Your task to perform on an android device: open a new tab in the chrome app Image 0: 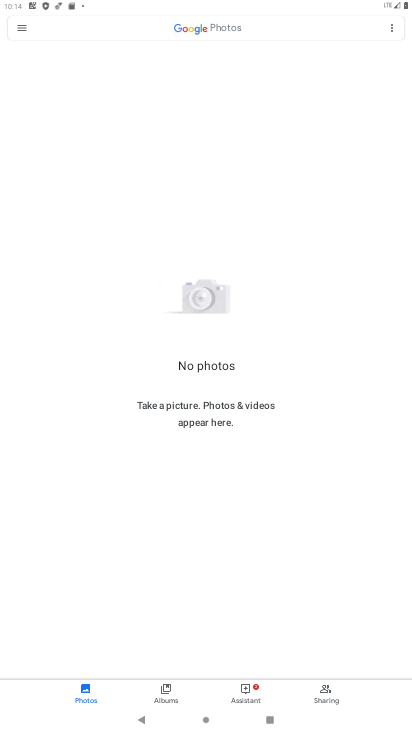
Step 0: press home button
Your task to perform on an android device: open a new tab in the chrome app Image 1: 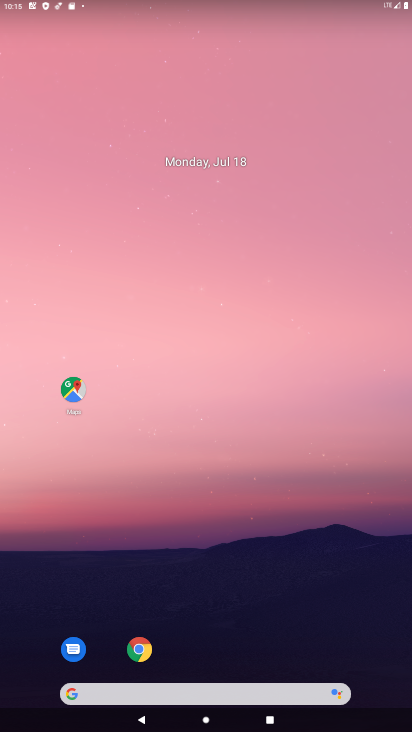
Step 1: click (141, 649)
Your task to perform on an android device: open a new tab in the chrome app Image 2: 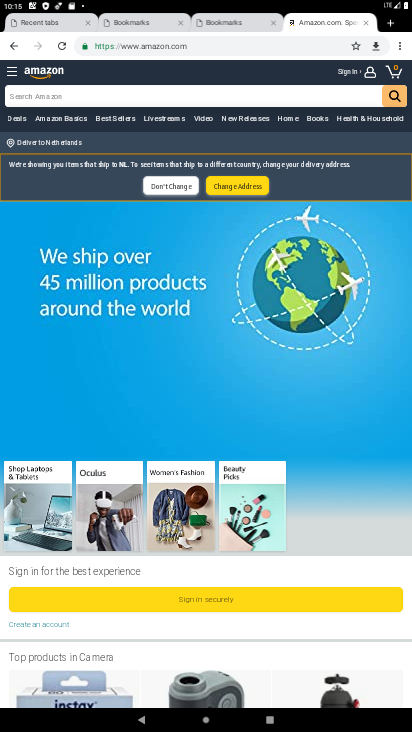
Step 2: click (397, 42)
Your task to perform on an android device: open a new tab in the chrome app Image 3: 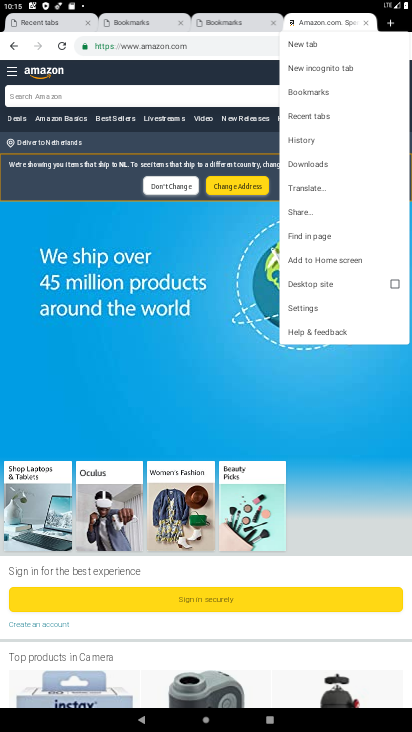
Step 3: click (345, 52)
Your task to perform on an android device: open a new tab in the chrome app Image 4: 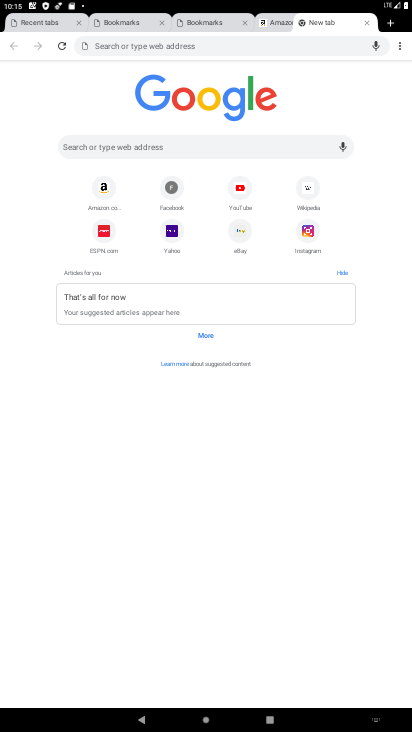
Step 4: task complete